Your task to perform on an android device: Show me productivity apps on the Play Store Image 0: 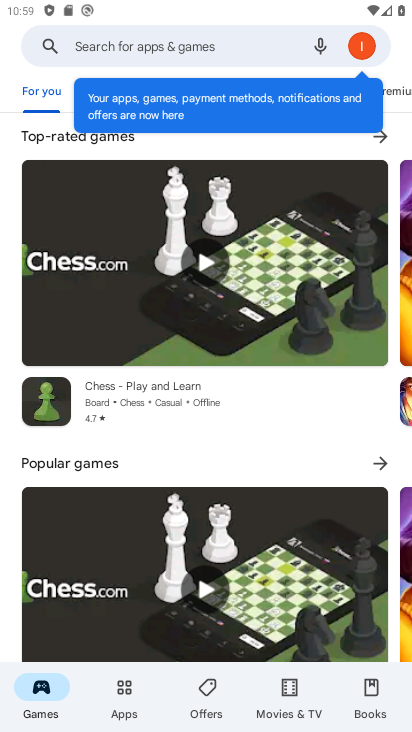
Step 0: click (47, 91)
Your task to perform on an android device: Show me productivity apps on the Play Store Image 1: 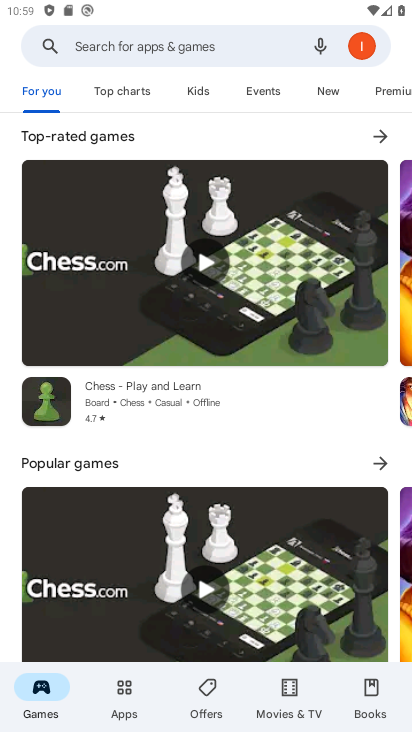
Step 1: click (131, 698)
Your task to perform on an android device: Show me productivity apps on the Play Store Image 2: 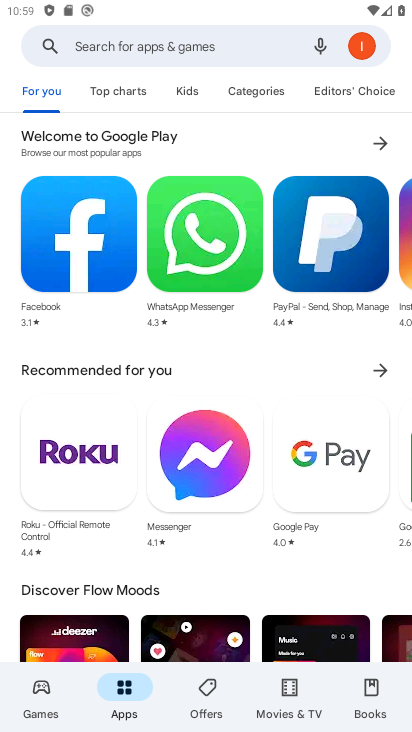
Step 2: click (246, 87)
Your task to perform on an android device: Show me productivity apps on the Play Store Image 3: 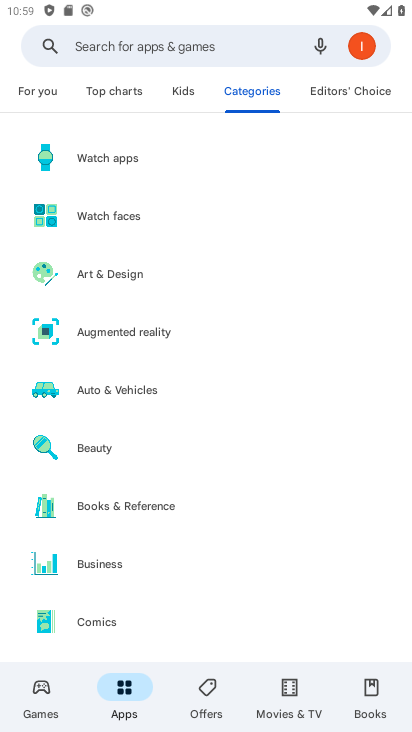
Step 3: drag from (137, 636) to (268, 179)
Your task to perform on an android device: Show me productivity apps on the Play Store Image 4: 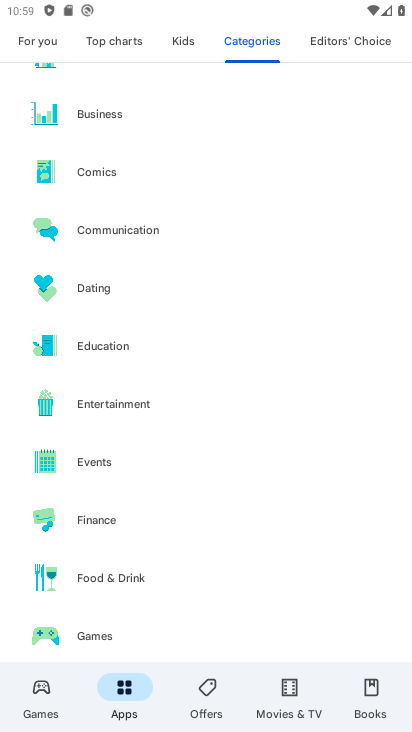
Step 4: drag from (147, 621) to (198, 168)
Your task to perform on an android device: Show me productivity apps on the Play Store Image 5: 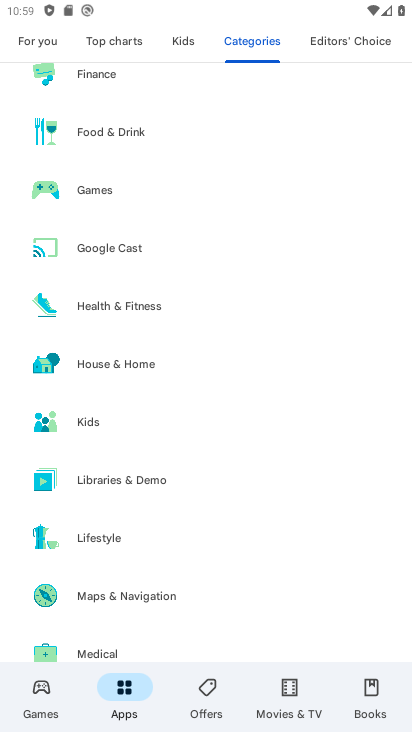
Step 5: drag from (97, 634) to (162, 68)
Your task to perform on an android device: Show me productivity apps on the Play Store Image 6: 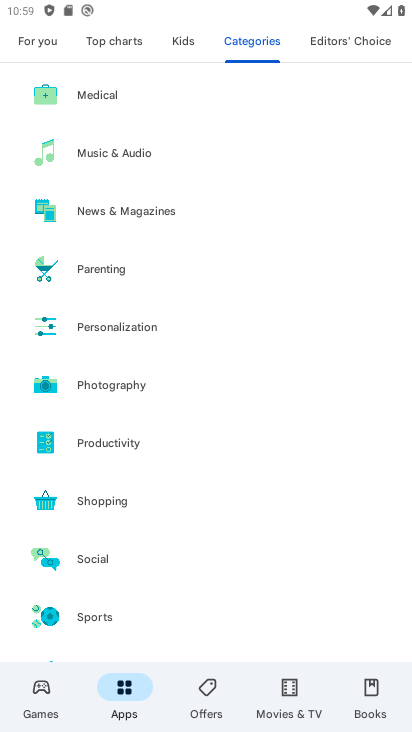
Step 6: drag from (131, 572) to (177, 136)
Your task to perform on an android device: Show me productivity apps on the Play Store Image 7: 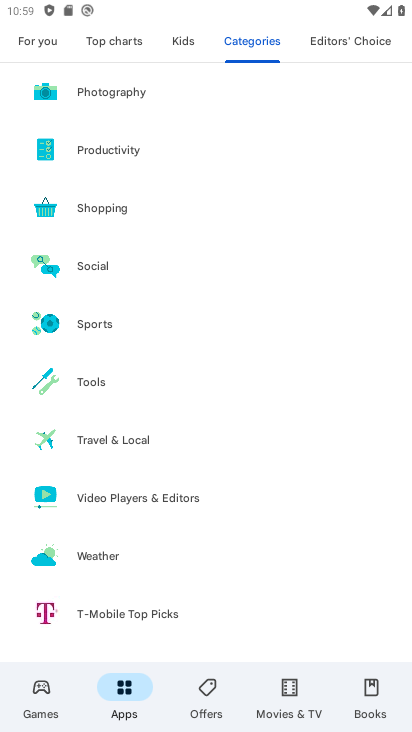
Step 7: click (144, 157)
Your task to perform on an android device: Show me productivity apps on the Play Store Image 8: 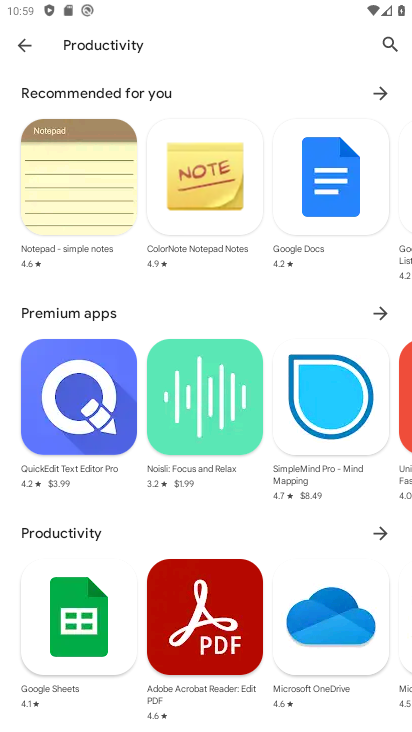
Step 8: task complete